Your task to perform on an android device: show emergency info Image 0: 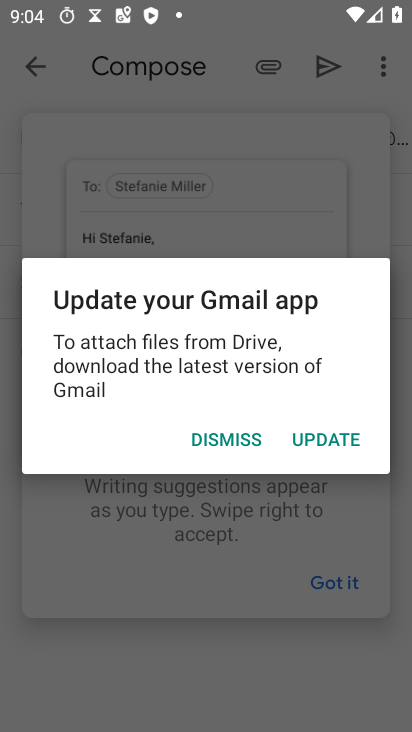
Step 0: press home button
Your task to perform on an android device: show emergency info Image 1: 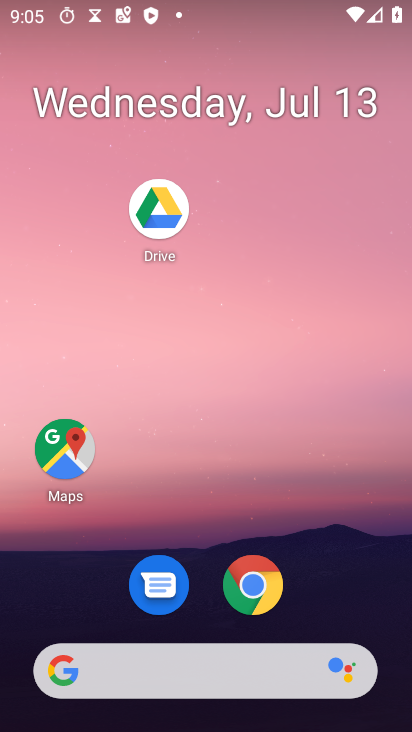
Step 1: drag from (168, 665) to (337, 112)
Your task to perform on an android device: show emergency info Image 2: 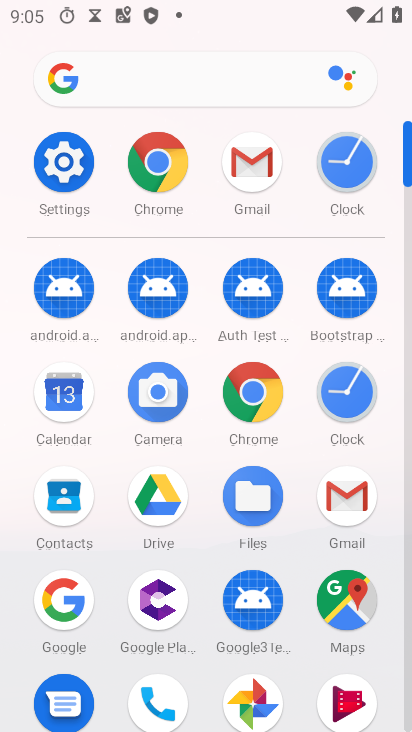
Step 2: click (71, 170)
Your task to perform on an android device: show emergency info Image 3: 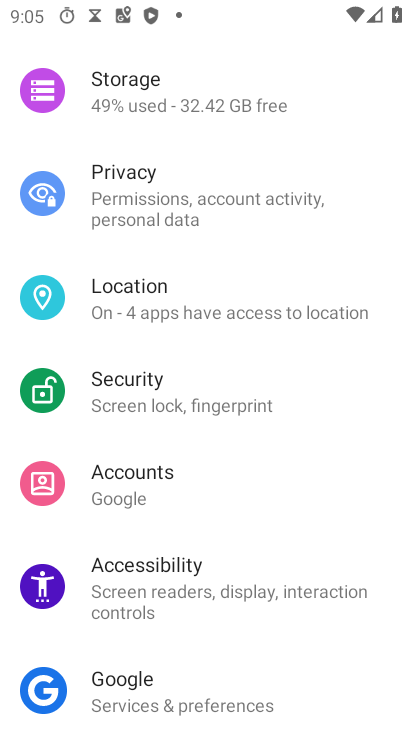
Step 3: drag from (294, 636) to (409, 41)
Your task to perform on an android device: show emergency info Image 4: 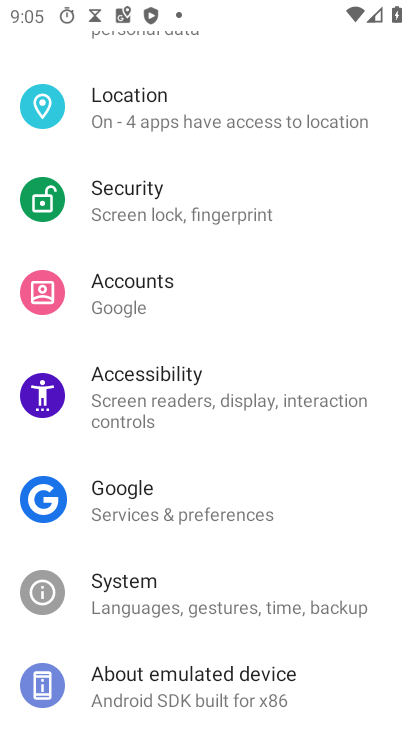
Step 4: click (219, 672)
Your task to perform on an android device: show emergency info Image 5: 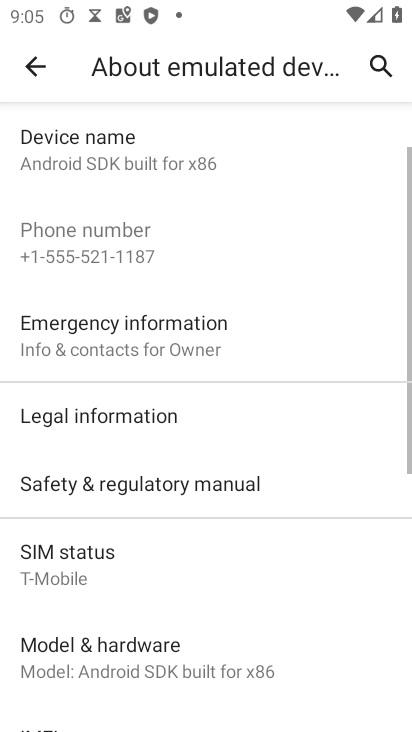
Step 5: click (158, 337)
Your task to perform on an android device: show emergency info Image 6: 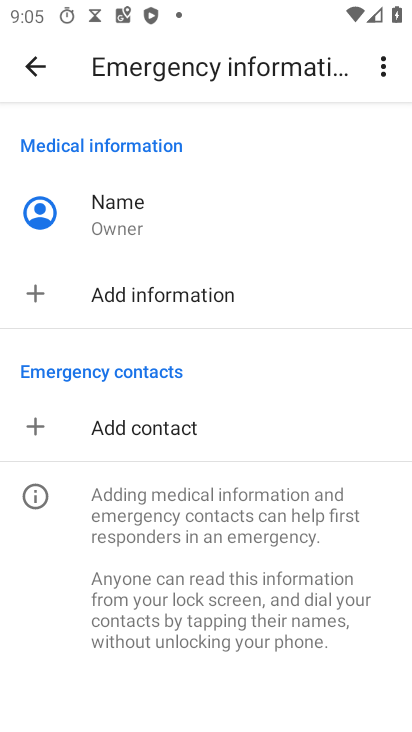
Step 6: task complete